Your task to perform on an android device: When is my next meeting? Image 0: 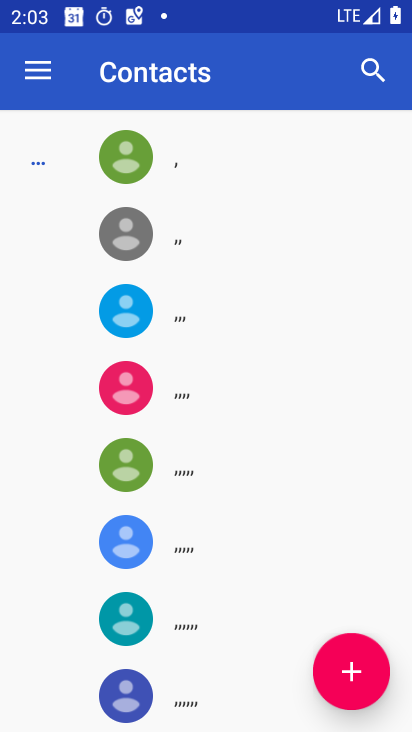
Step 0: press home button
Your task to perform on an android device: When is my next meeting? Image 1: 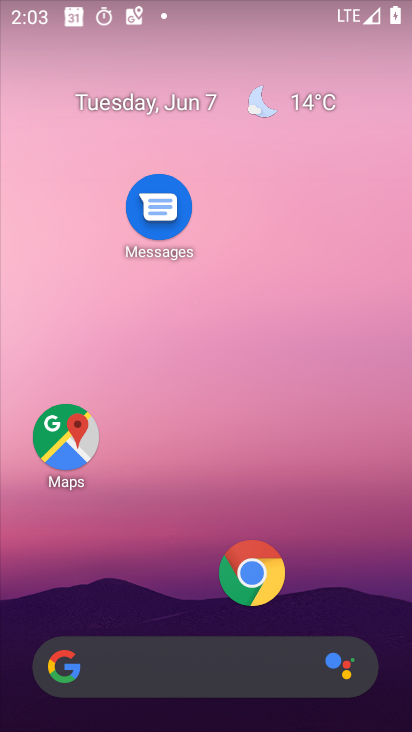
Step 1: drag from (199, 613) to (261, 51)
Your task to perform on an android device: When is my next meeting? Image 2: 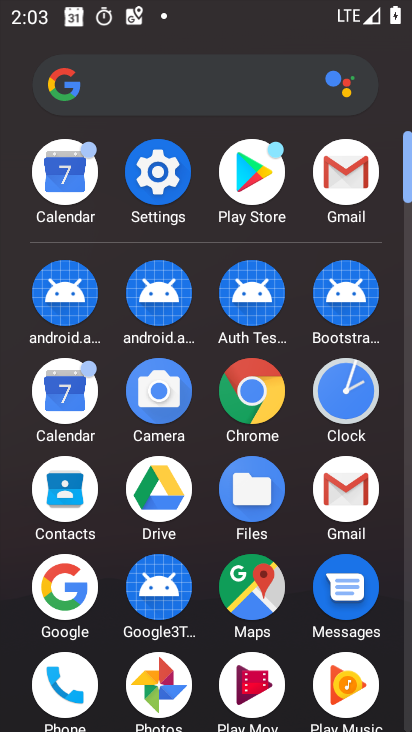
Step 2: click (55, 388)
Your task to perform on an android device: When is my next meeting? Image 3: 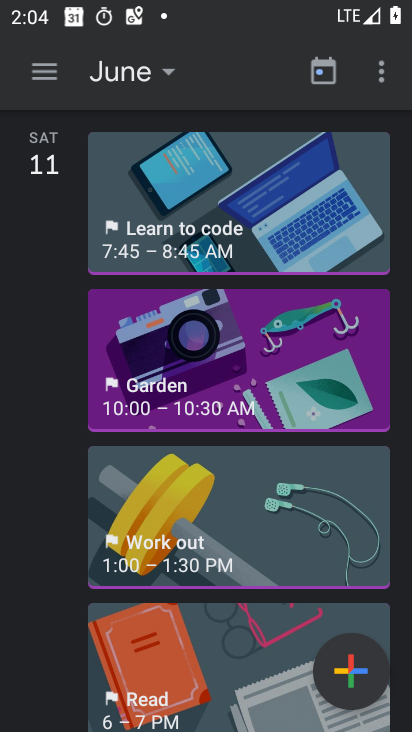
Step 3: click (165, 71)
Your task to perform on an android device: When is my next meeting? Image 4: 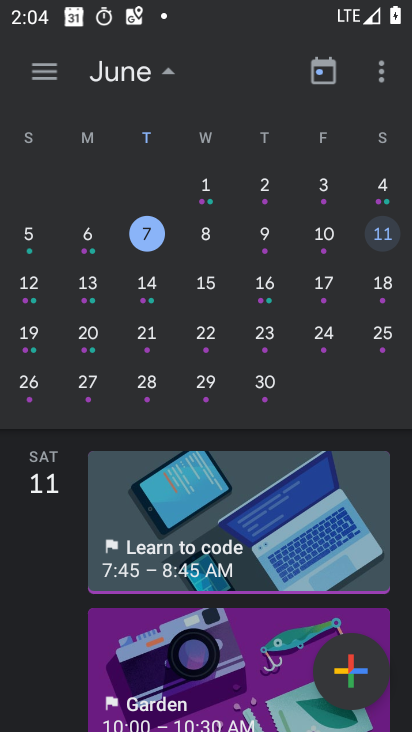
Step 4: click (152, 224)
Your task to perform on an android device: When is my next meeting? Image 5: 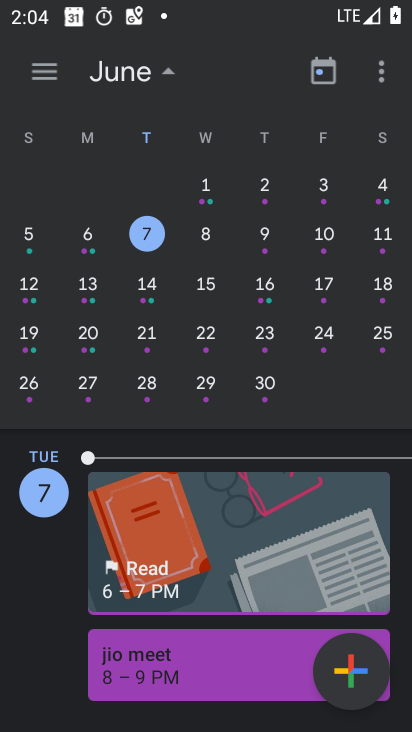
Step 5: click (161, 69)
Your task to perform on an android device: When is my next meeting? Image 6: 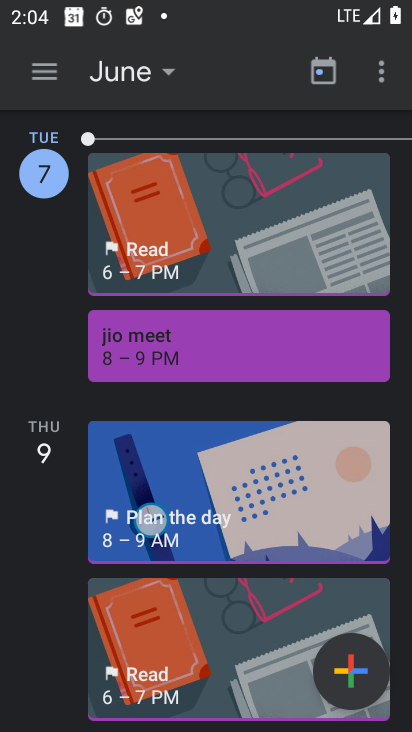
Step 6: task complete